Your task to perform on an android device: What's the weather like in San Francisco? Image 0: 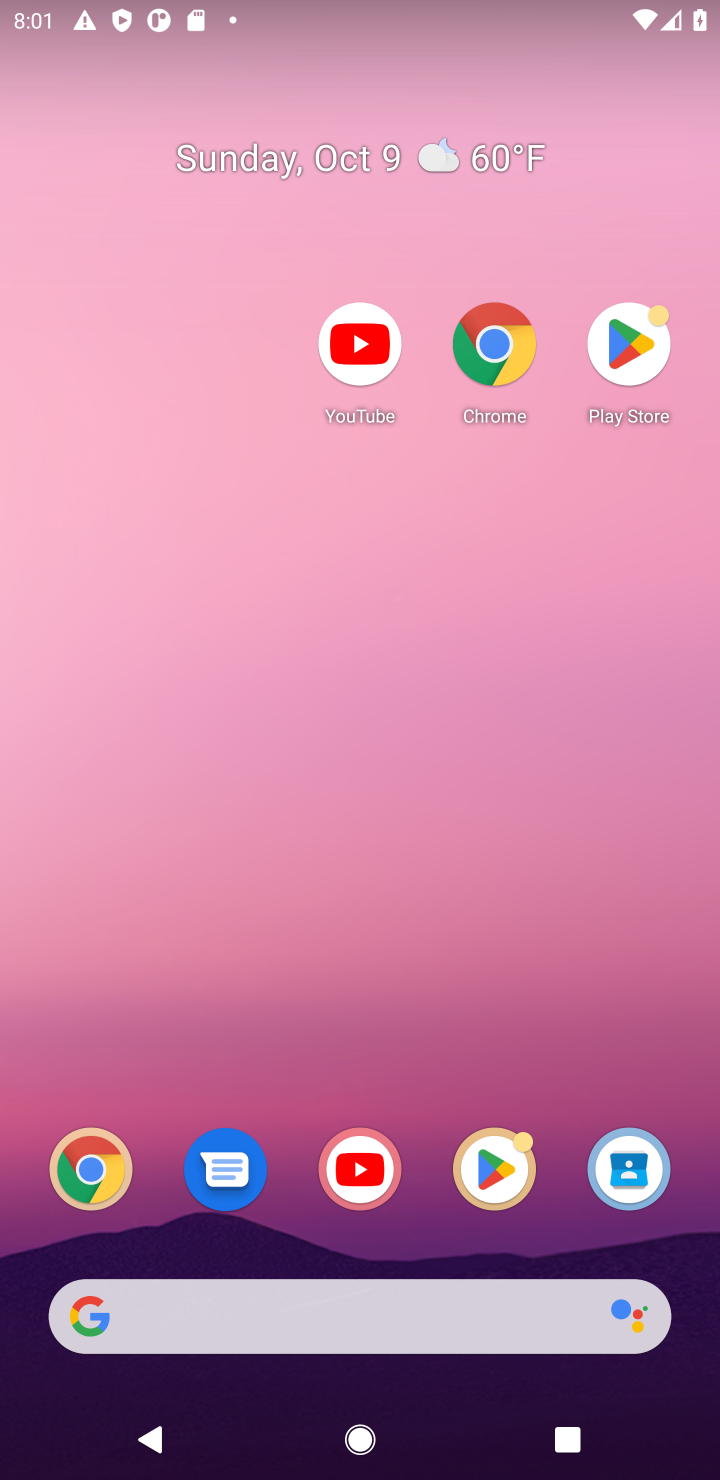
Step 0: drag from (424, 1177) to (413, 25)
Your task to perform on an android device: What's the weather like in San Francisco? Image 1: 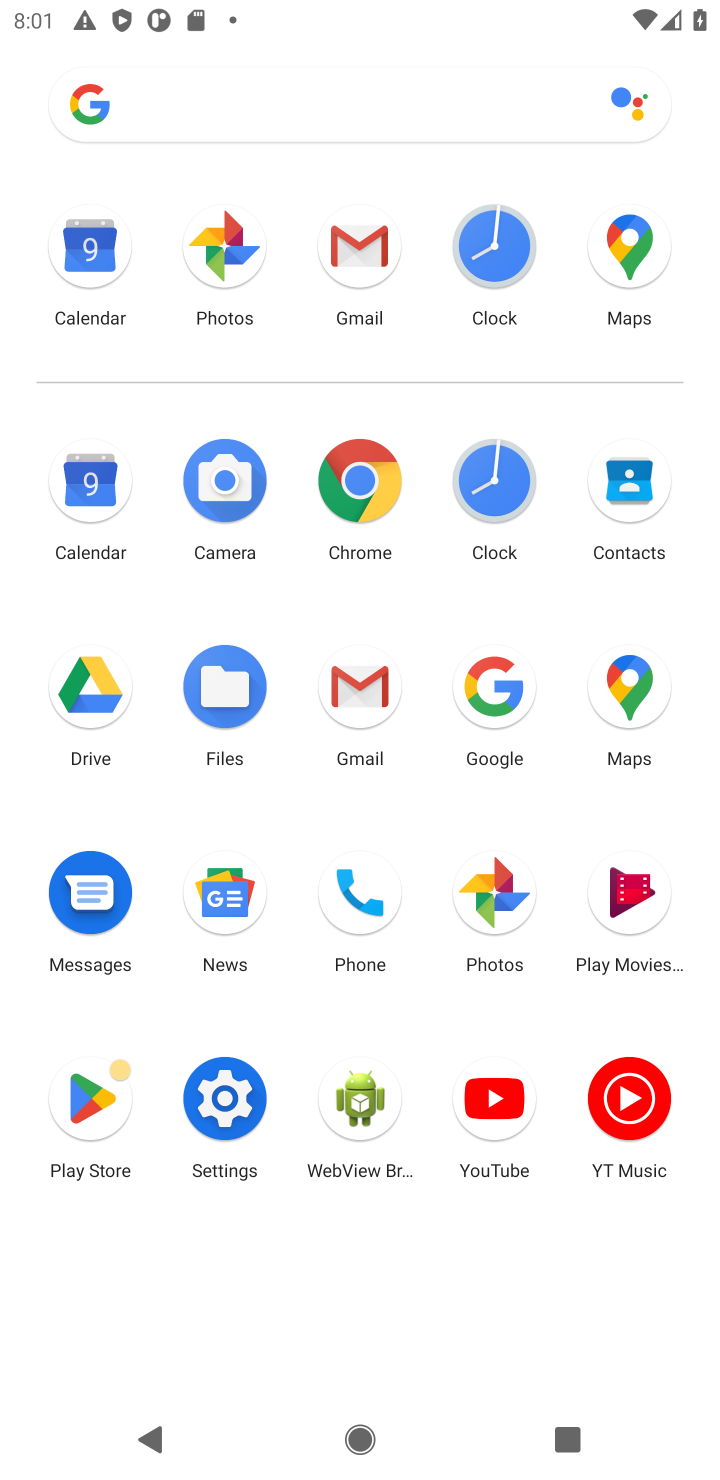
Step 1: click (373, 481)
Your task to perform on an android device: What's the weather like in San Francisco? Image 2: 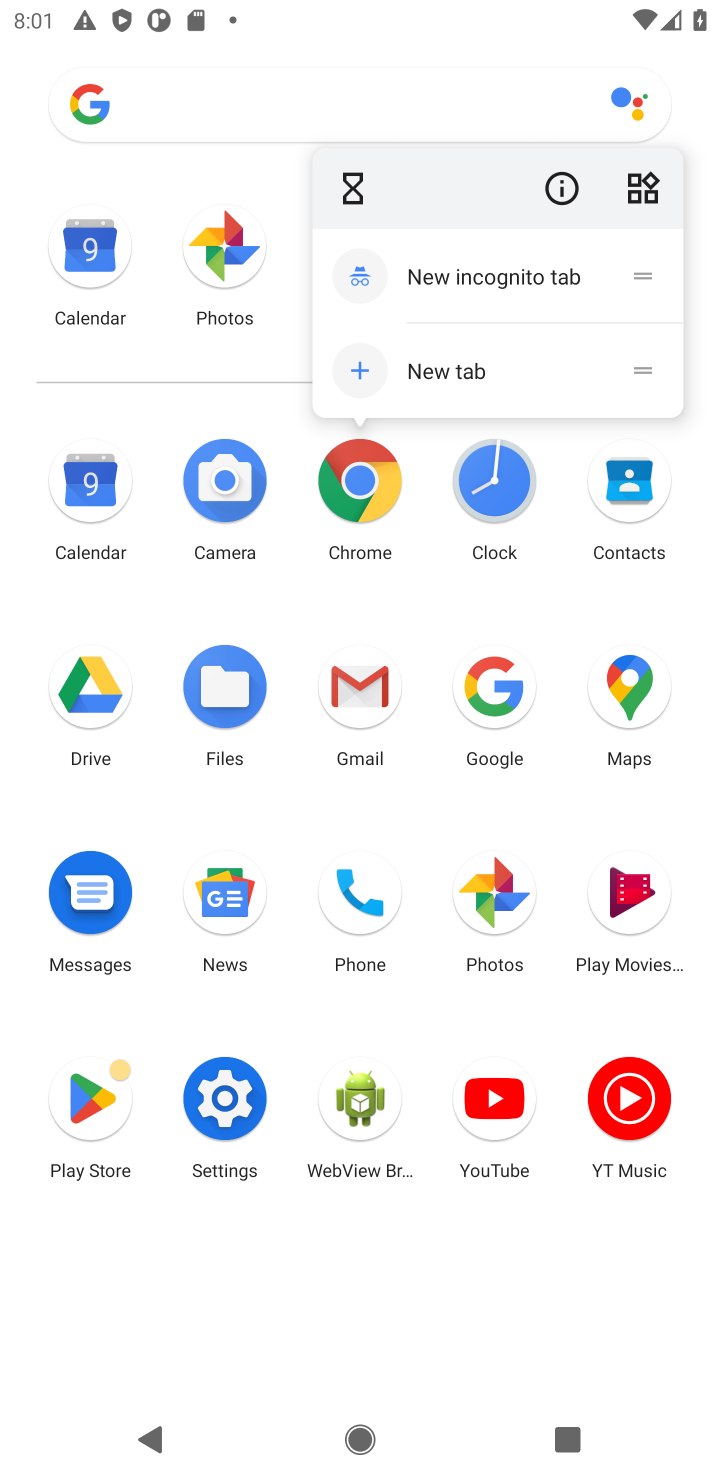
Step 2: click (373, 483)
Your task to perform on an android device: What's the weather like in San Francisco? Image 3: 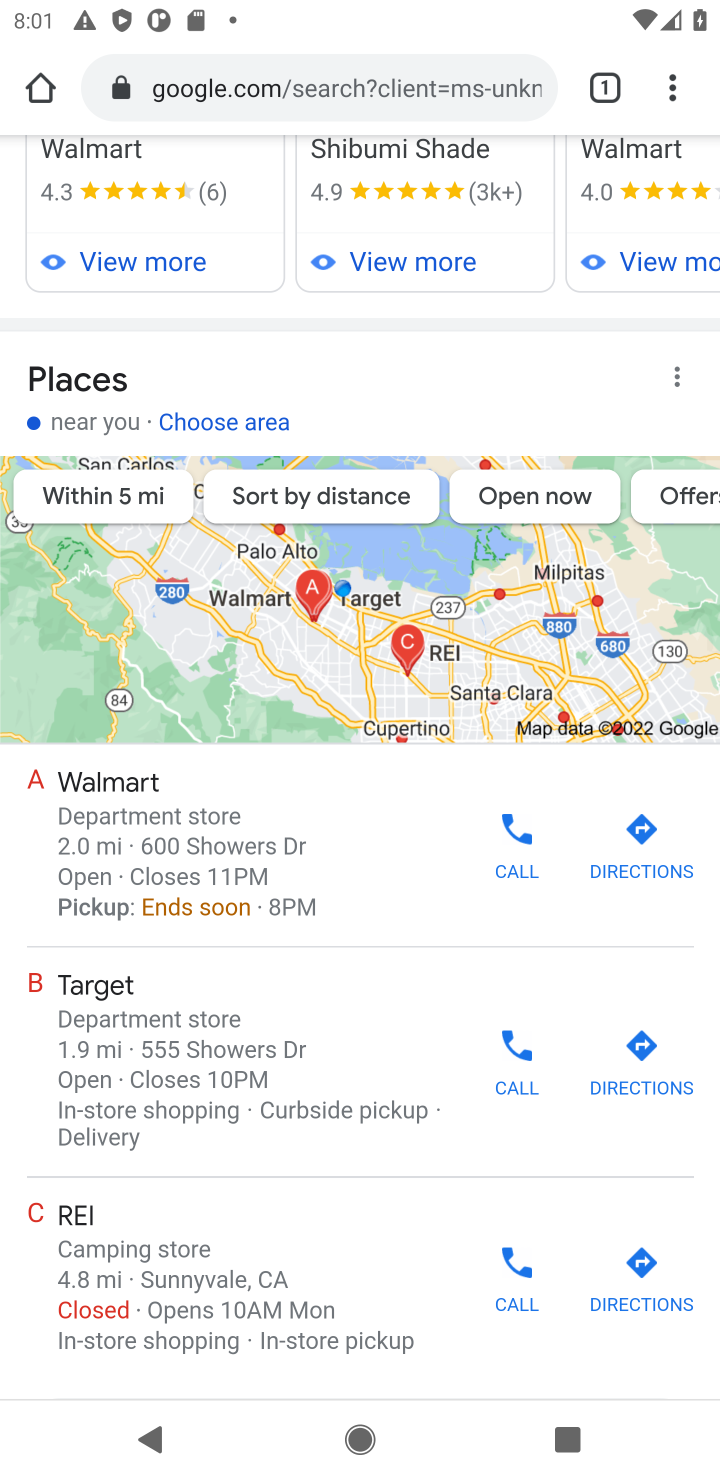
Step 3: click (396, 76)
Your task to perform on an android device: What's the weather like in San Francisco? Image 4: 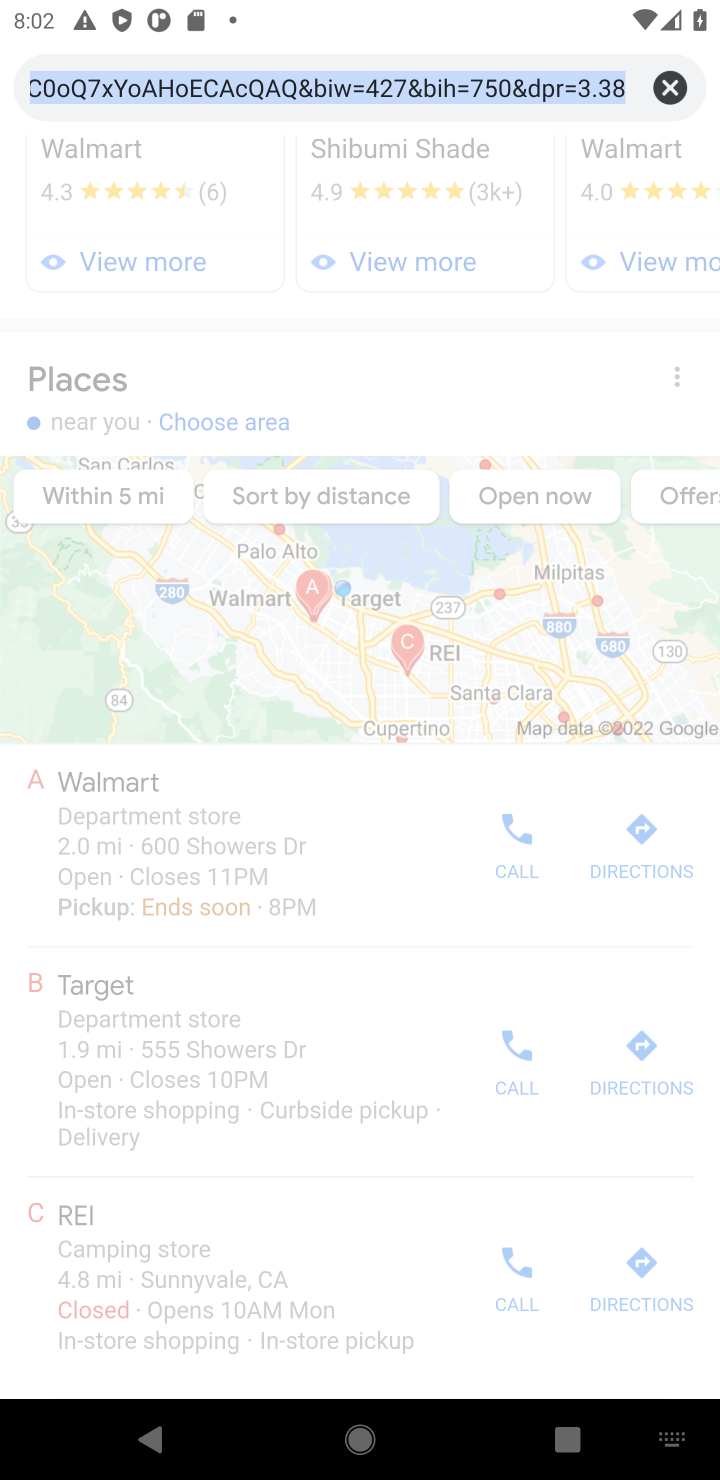
Step 4: type "What's the weather like in San Fancisco?"
Your task to perform on an android device: What's the weather like in San Francisco? Image 5: 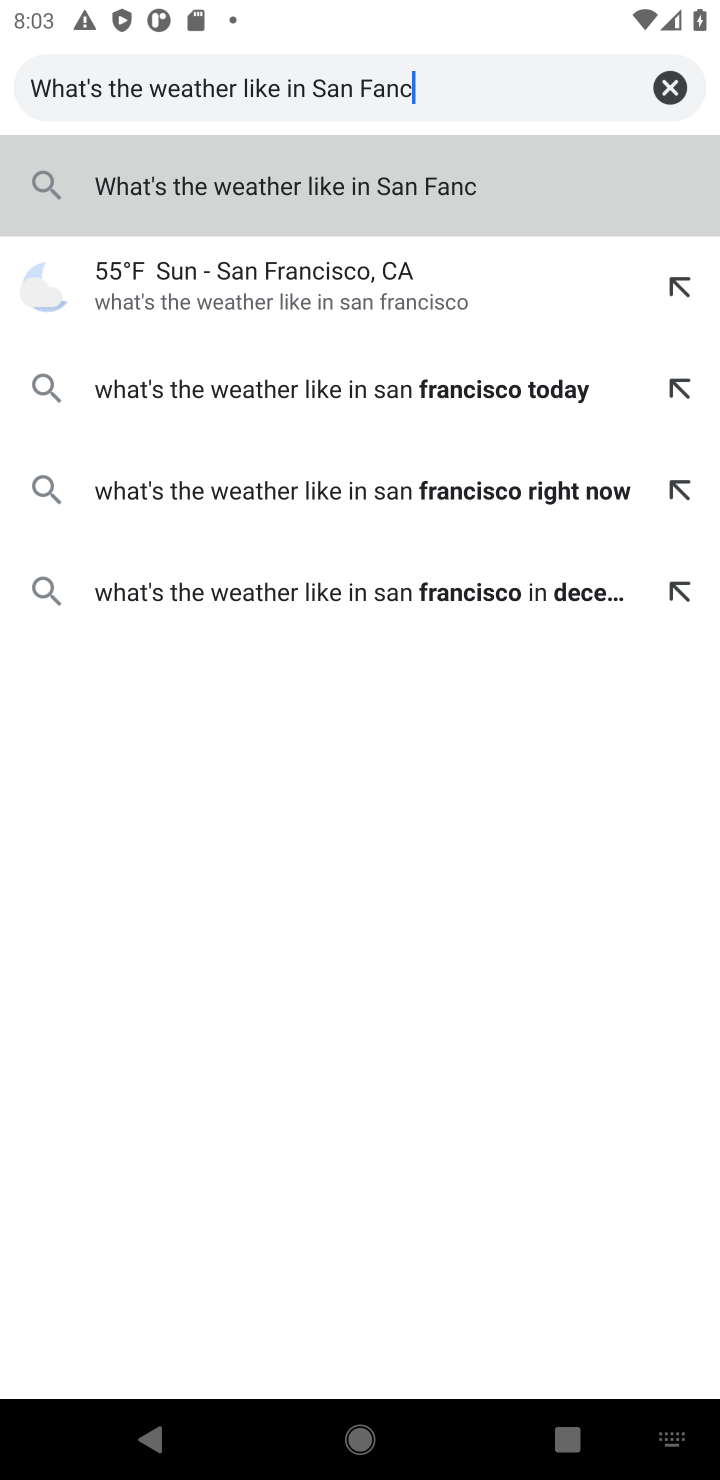
Step 5: click (304, 289)
Your task to perform on an android device: What's the weather like in San Francisco? Image 6: 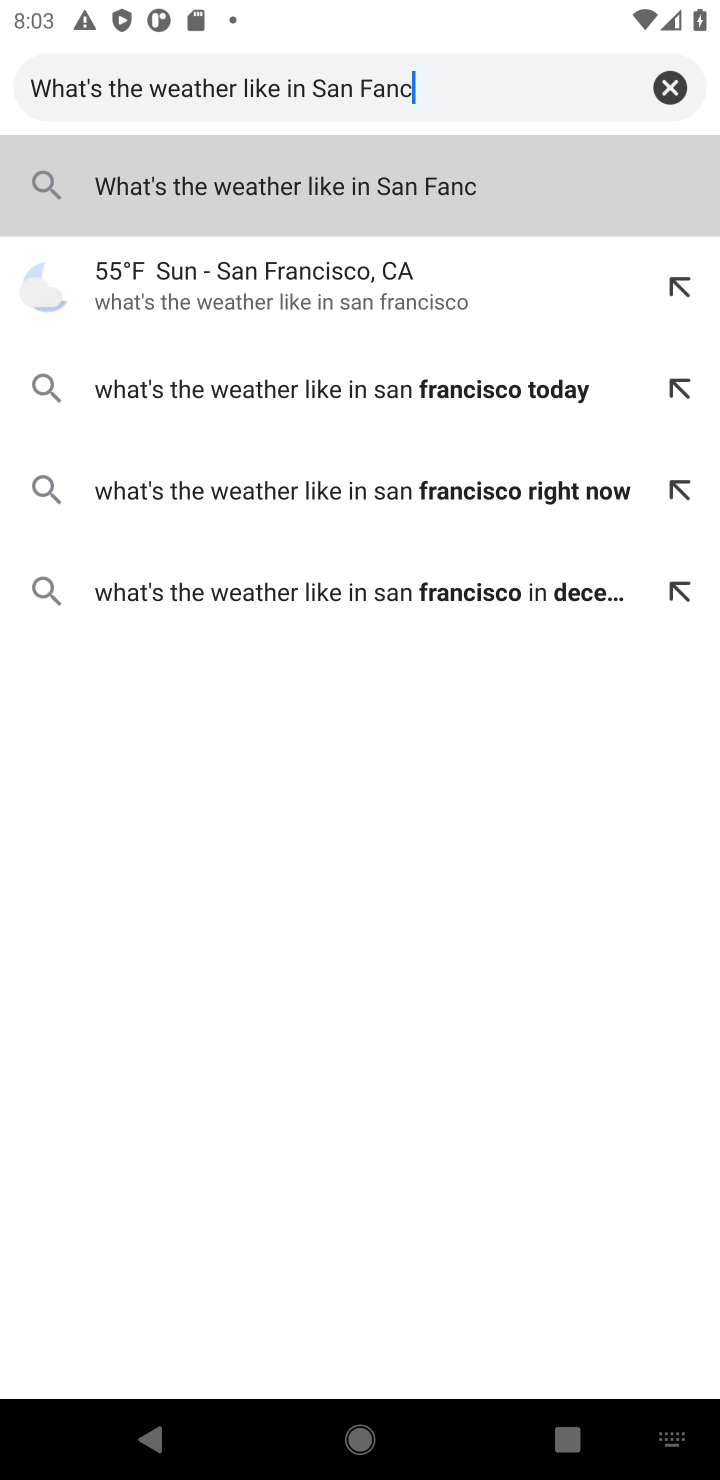
Step 6: click (304, 289)
Your task to perform on an android device: What's the weather like in San Francisco? Image 7: 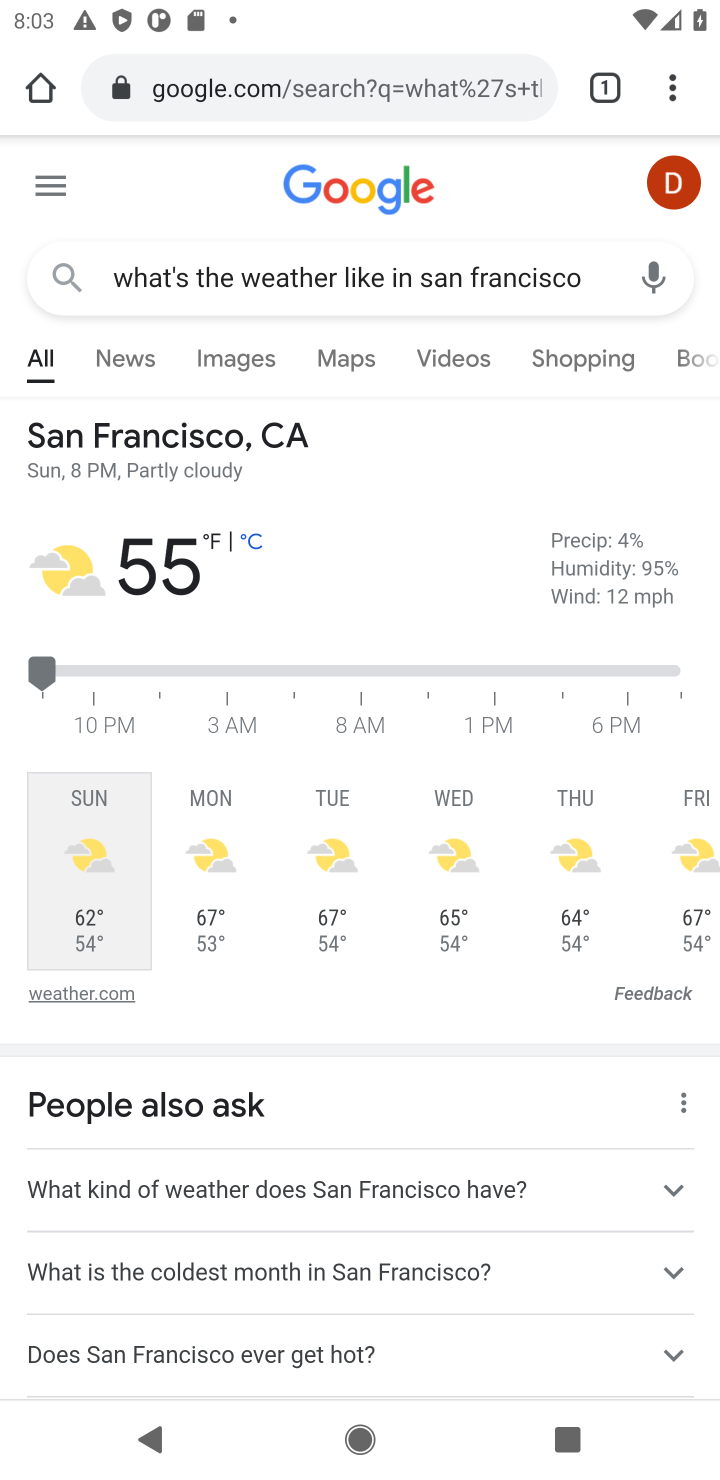
Step 7: task complete